Your task to perform on an android device: Add asus zenbook to the cart on walmart.com Image 0: 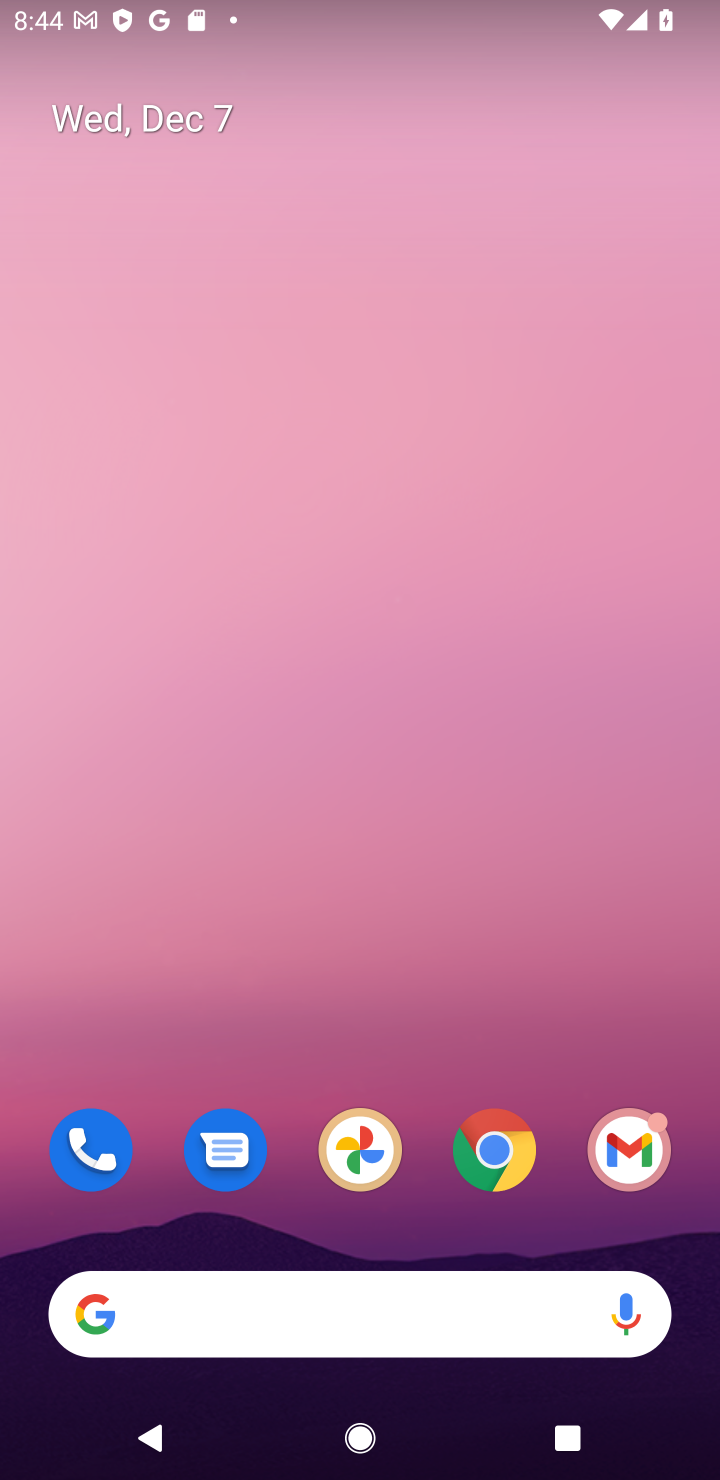
Step 0: click (488, 1140)
Your task to perform on an android device: Add asus zenbook to the cart on walmart.com Image 1: 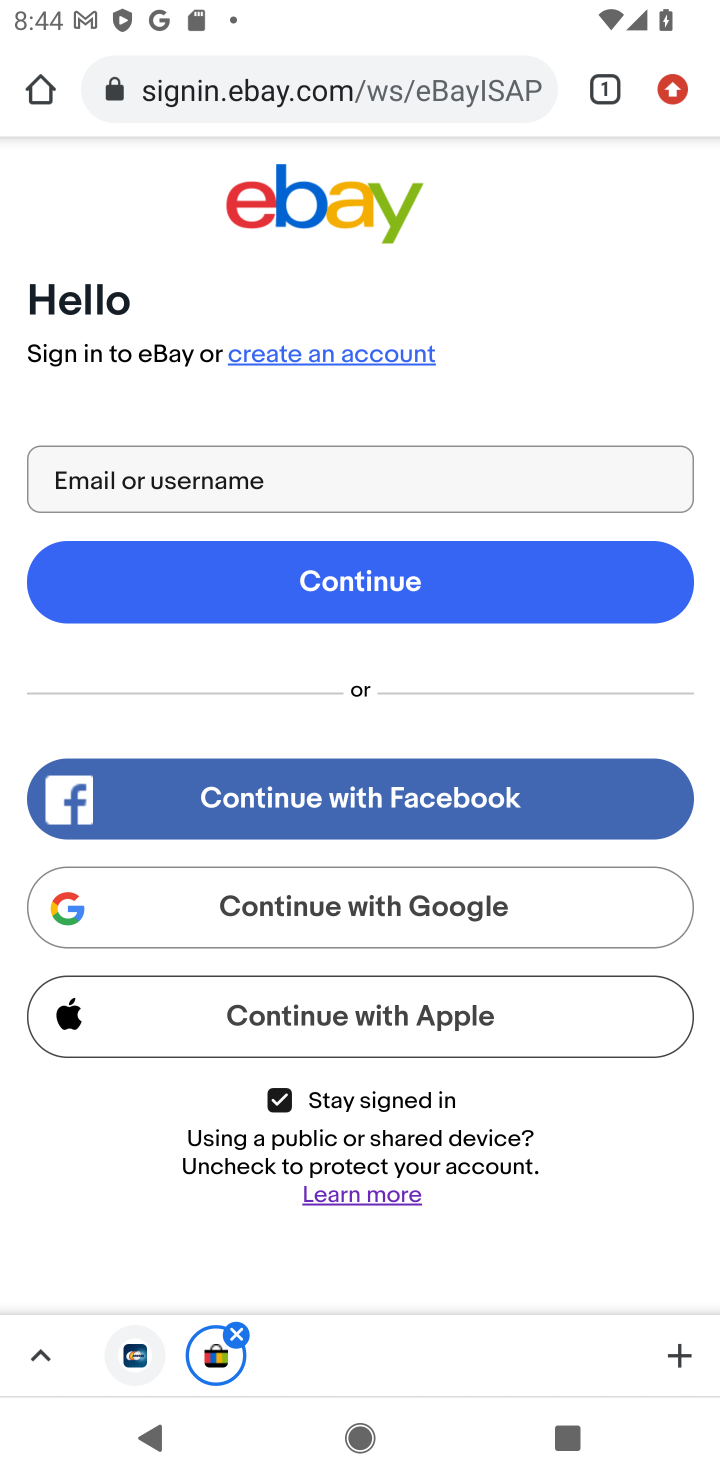
Step 1: click (359, 111)
Your task to perform on an android device: Add asus zenbook to the cart on walmart.com Image 2: 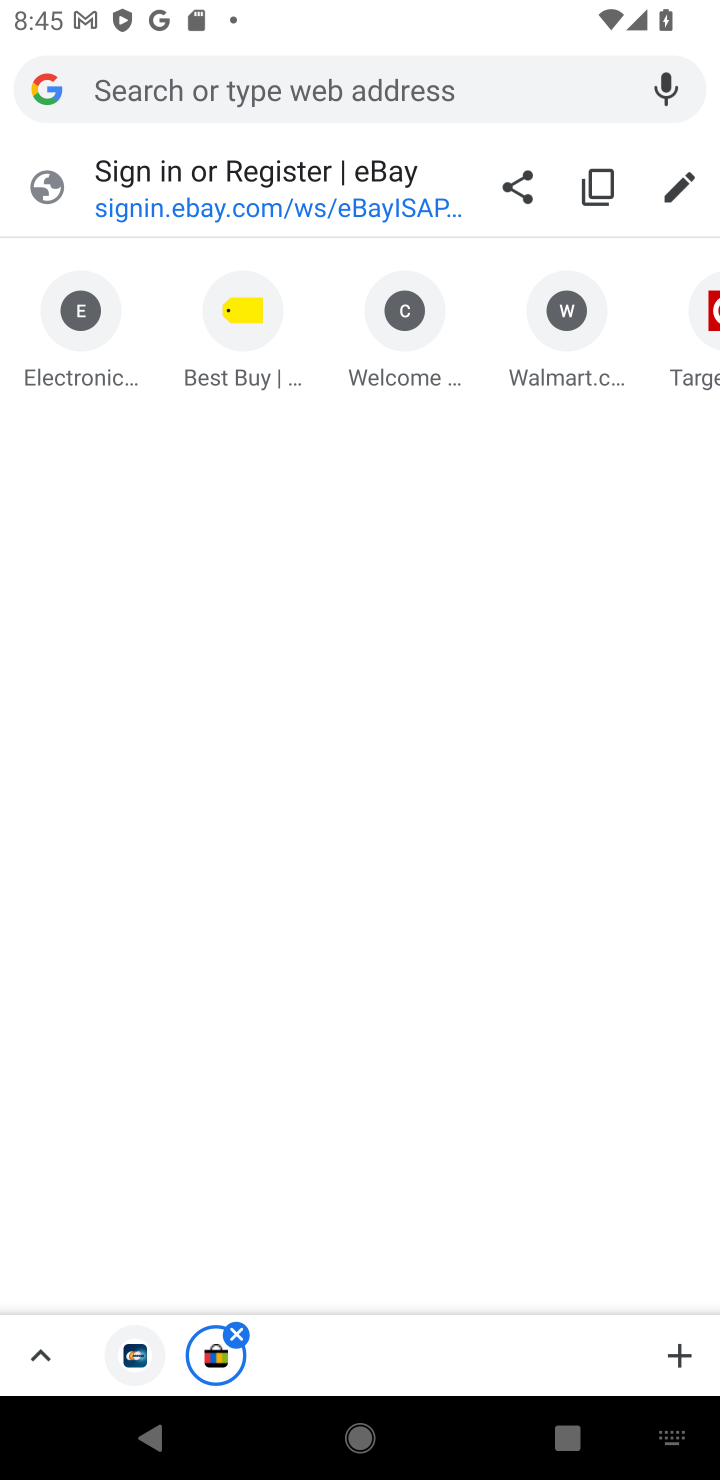
Step 2: type "walmart.com"
Your task to perform on an android device: Add asus zenbook to the cart on walmart.com Image 3: 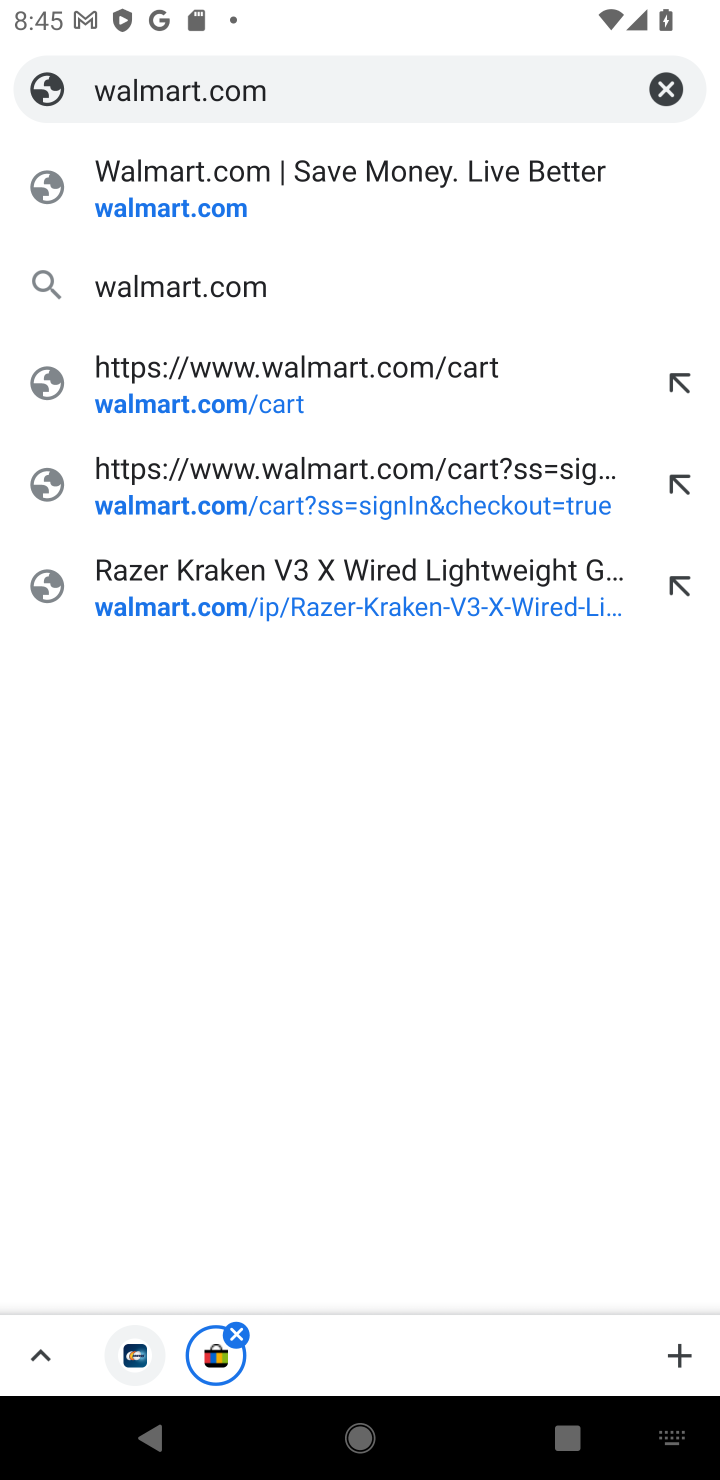
Step 3: click (280, 183)
Your task to perform on an android device: Add asus zenbook to the cart on walmart.com Image 4: 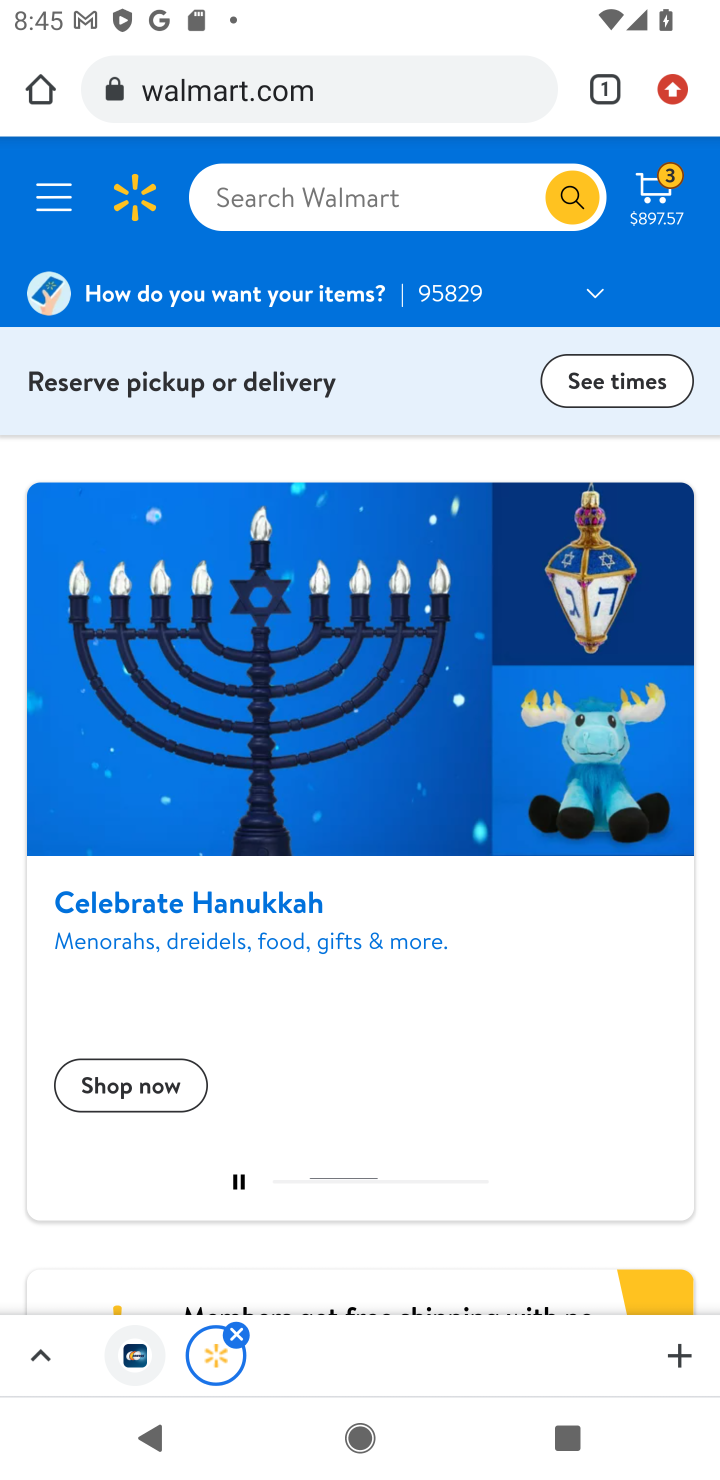
Step 4: click (291, 195)
Your task to perform on an android device: Add asus zenbook to the cart on walmart.com Image 5: 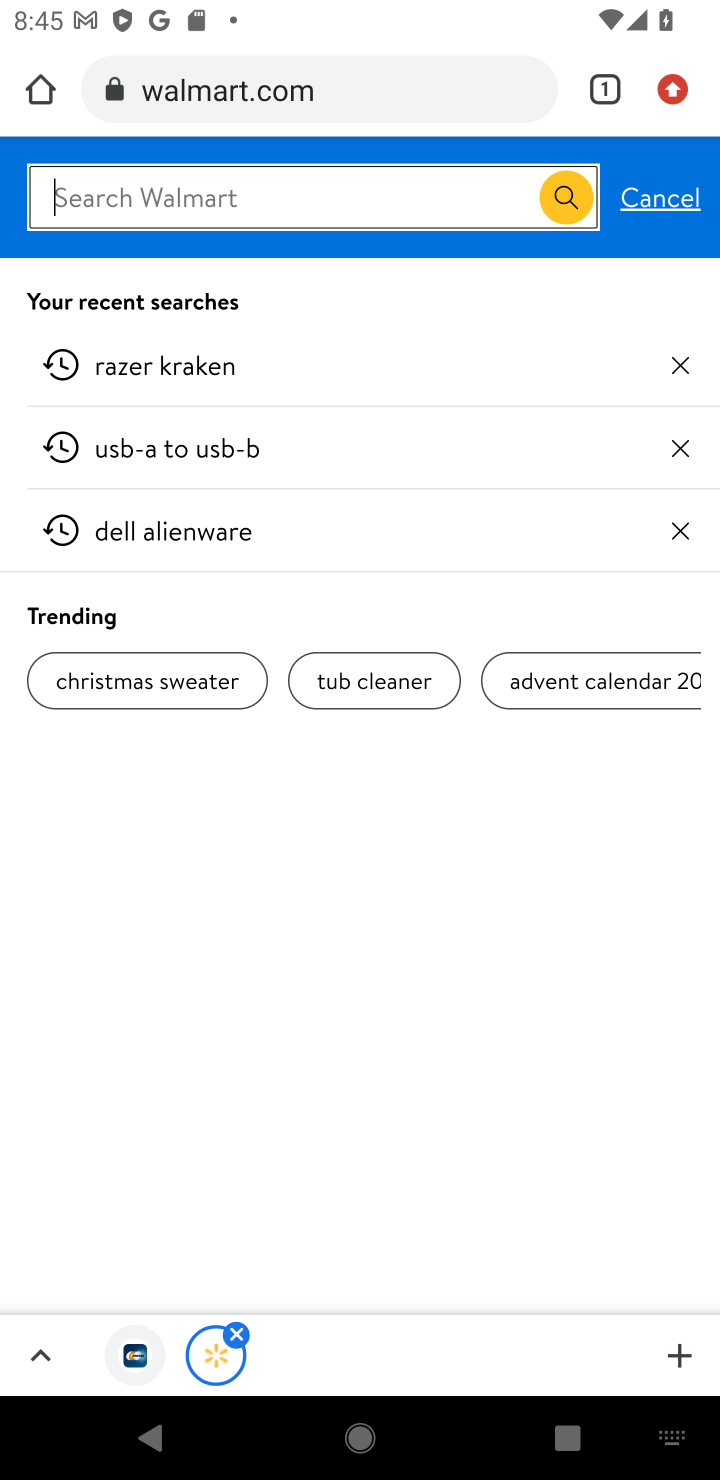
Step 5: type "asus zenbook"
Your task to perform on an android device: Add asus zenbook to the cart on walmart.com Image 6: 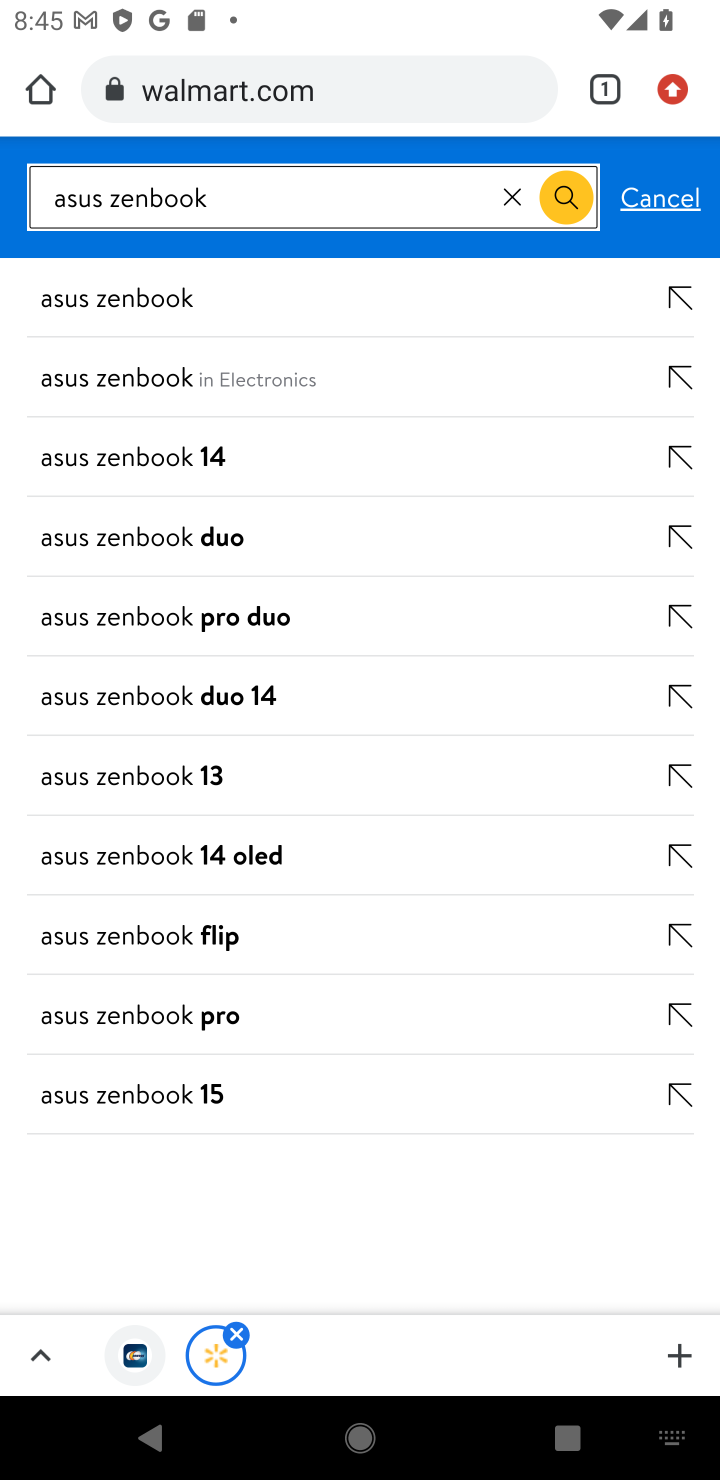
Step 6: press enter
Your task to perform on an android device: Add asus zenbook to the cart on walmart.com Image 7: 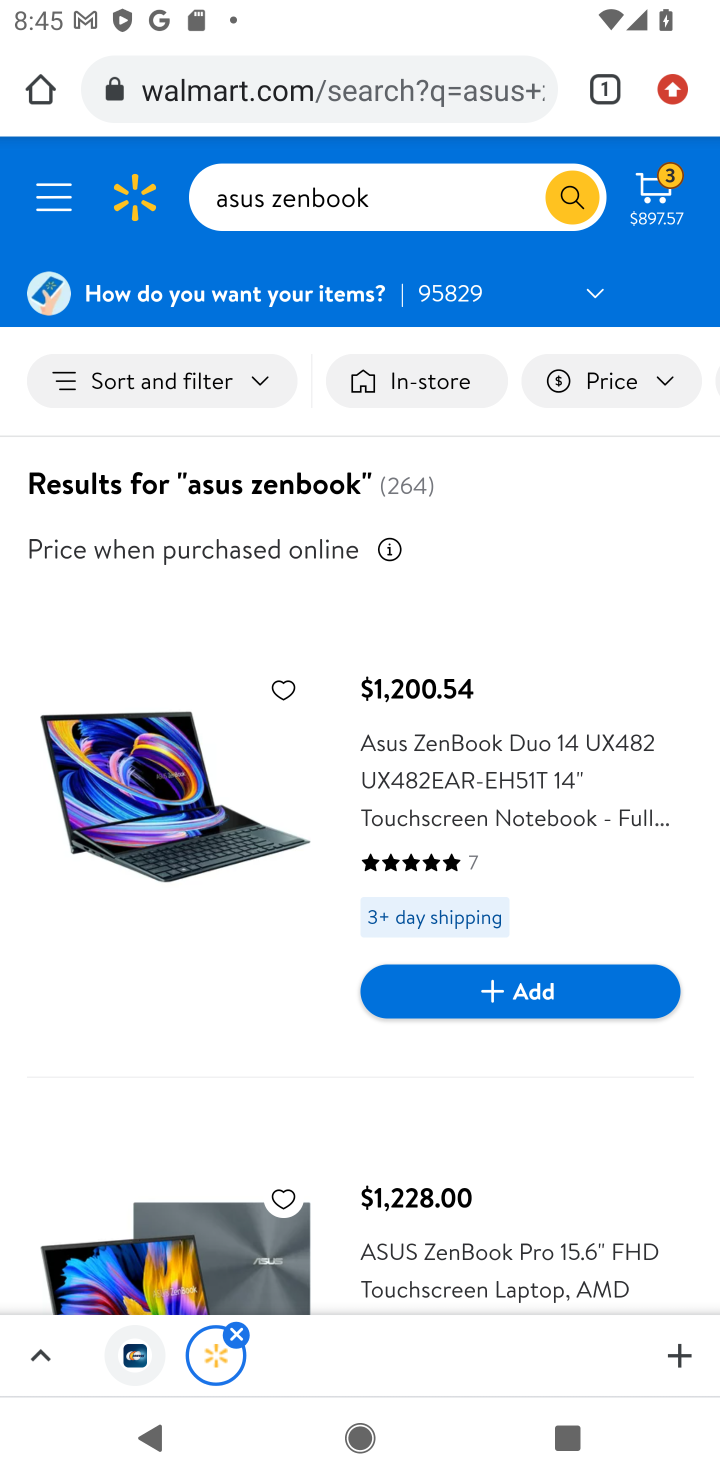
Step 7: click (514, 1006)
Your task to perform on an android device: Add asus zenbook to the cart on walmart.com Image 8: 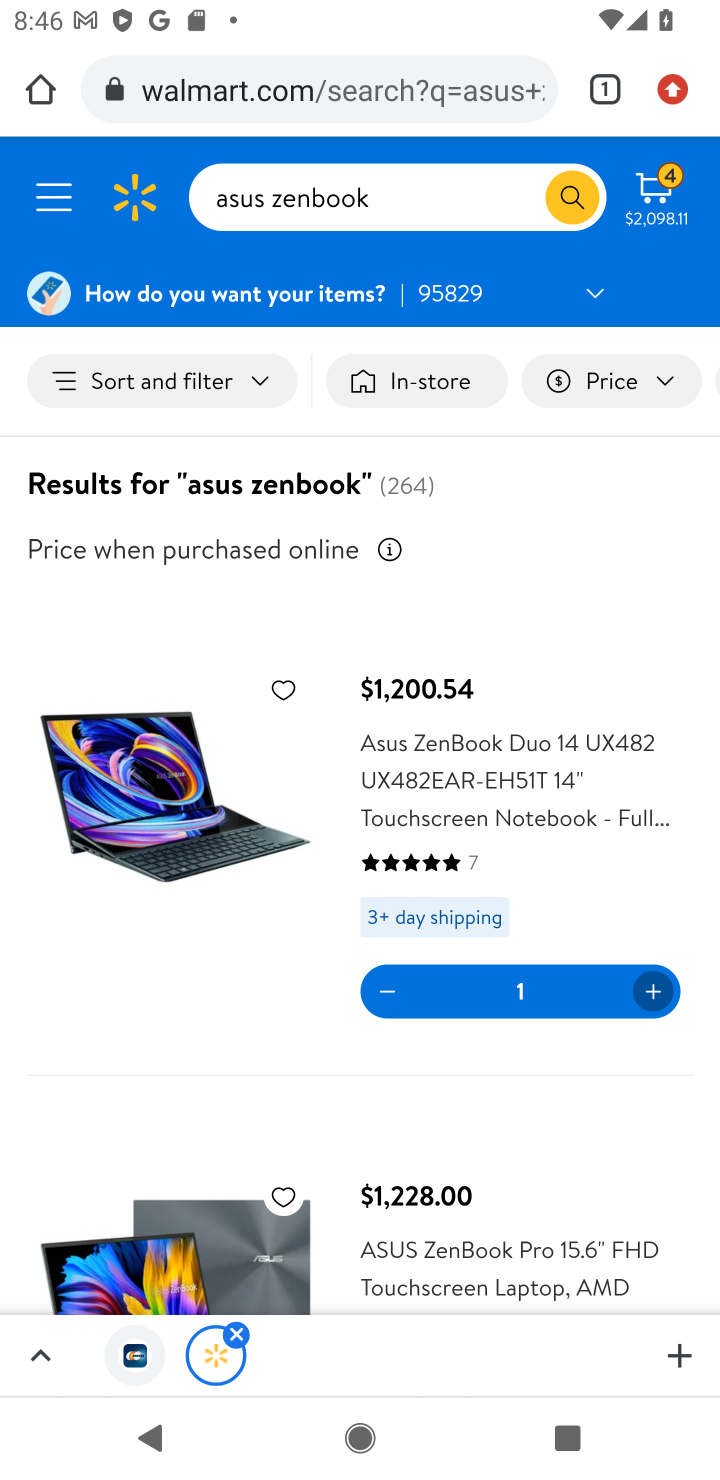
Step 8: task complete